Your task to perform on an android device: Open settings on Google Maps Image 0: 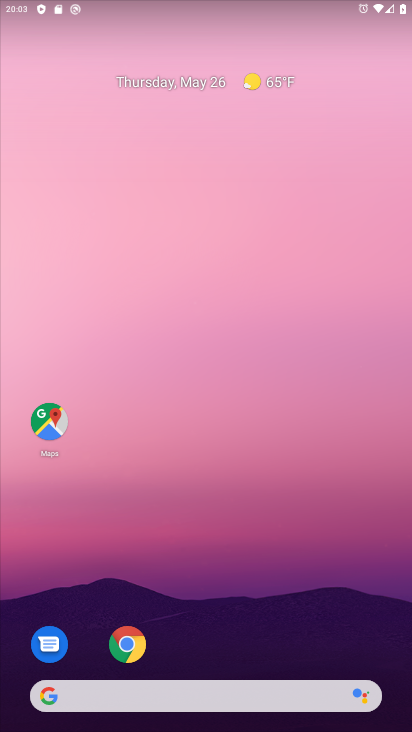
Step 0: drag from (178, 638) to (209, 150)
Your task to perform on an android device: Open settings on Google Maps Image 1: 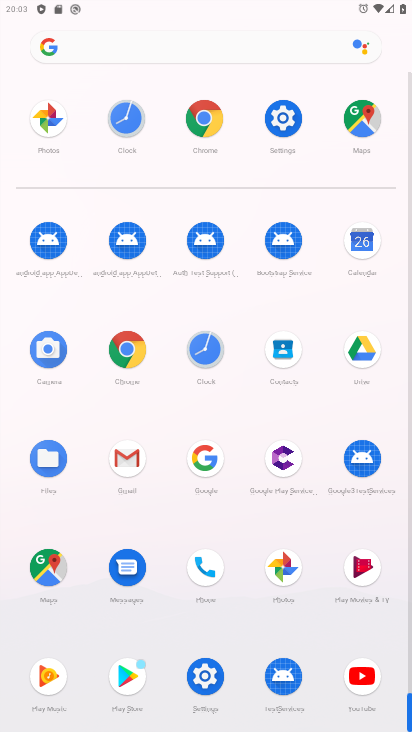
Step 1: click (42, 567)
Your task to perform on an android device: Open settings on Google Maps Image 2: 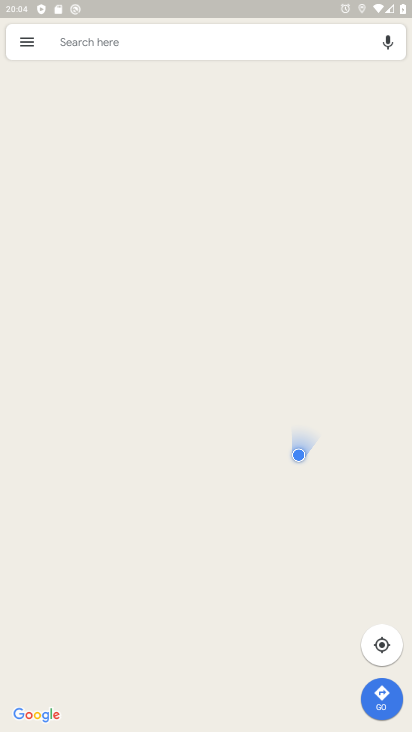
Step 2: click (19, 56)
Your task to perform on an android device: Open settings on Google Maps Image 3: 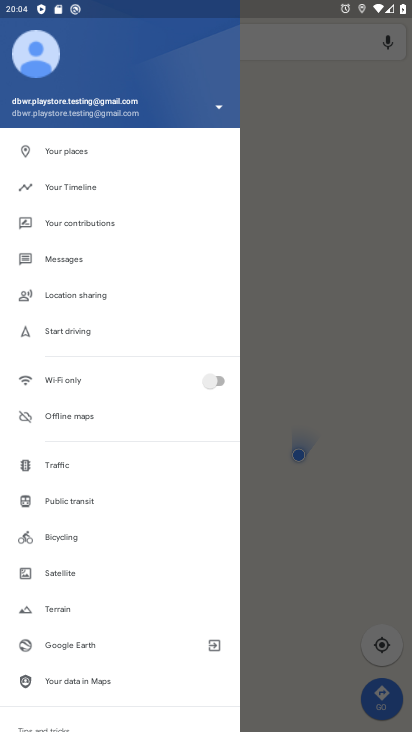
Step 3: drag from (64, 615) to (210, 53)
Your task to perform on an android device: Open settings on Google Maps Image 4: 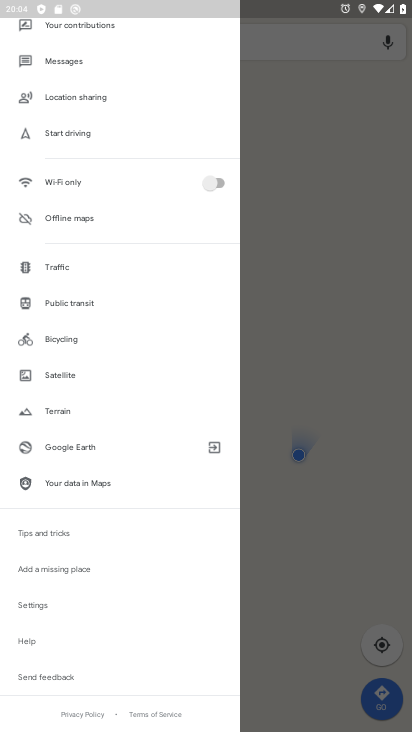
Step 4: click (29, 609)
Your task to perform on an android device: Open settings on Google Maps Image 5: 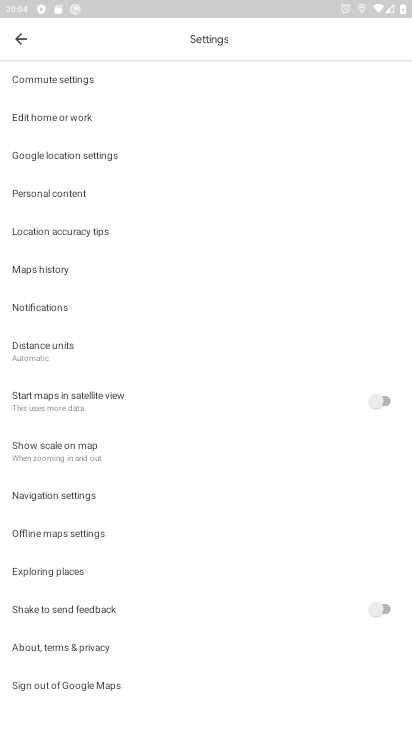
Step 5: task complete